Your task to perform on an android device: Open the calendar app, open the side menu, and click the "Day" option Image 0: 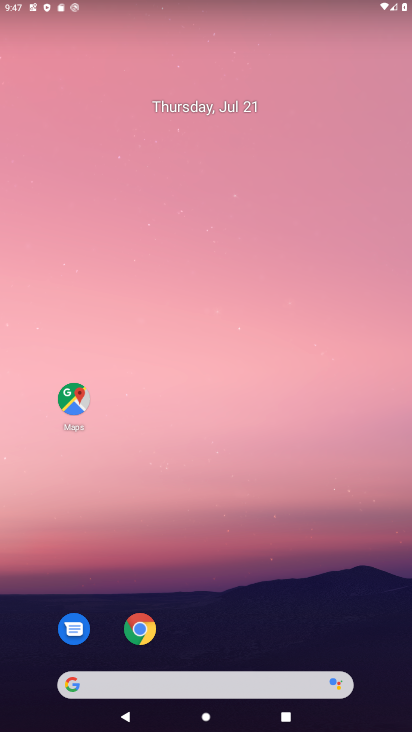
Step 0: click (208, 112)
Your task to perform on an android device: Open the calendar app, open the side menu, and click the "Day" option Image 1: 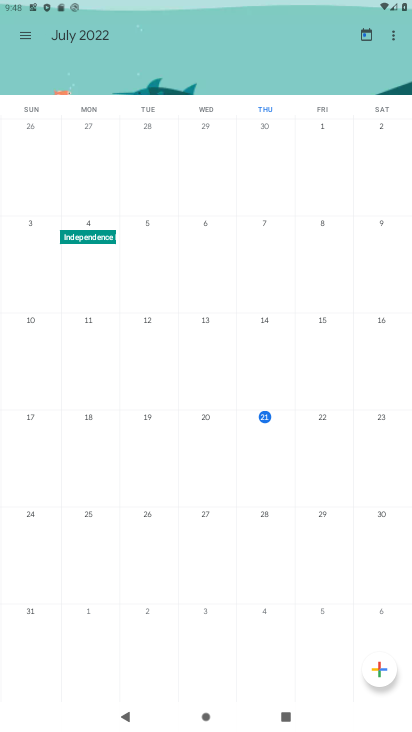
Step 1: click (26, 40)
Your task to perform on an android device: Open the calendar app, open the side menu, and click the "Day" option Image 2: 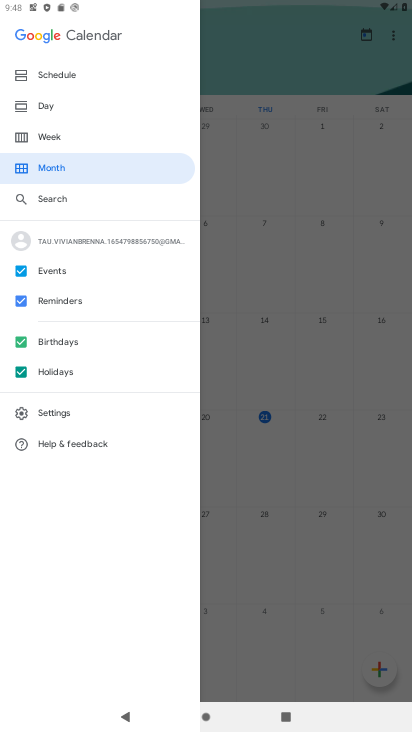
Step 2: click (41, 102)
Your task to perform on an android device: Open the calendar app, open the side menu, and click the "Day" option Image 3: 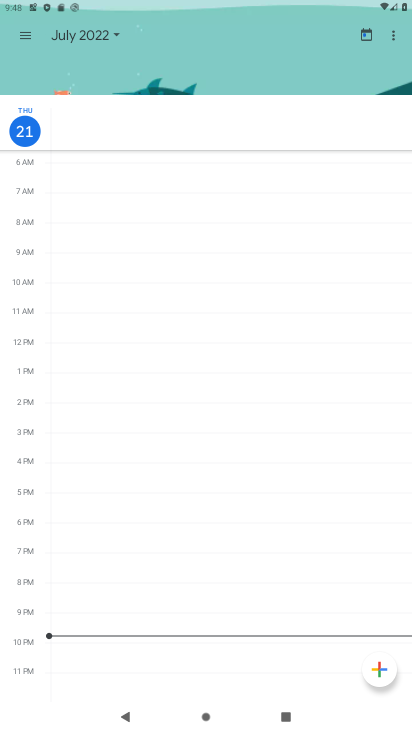
Step 3: task complete